Your task to perform on an android device: turn off notifications settings in the gmail app Image 0: 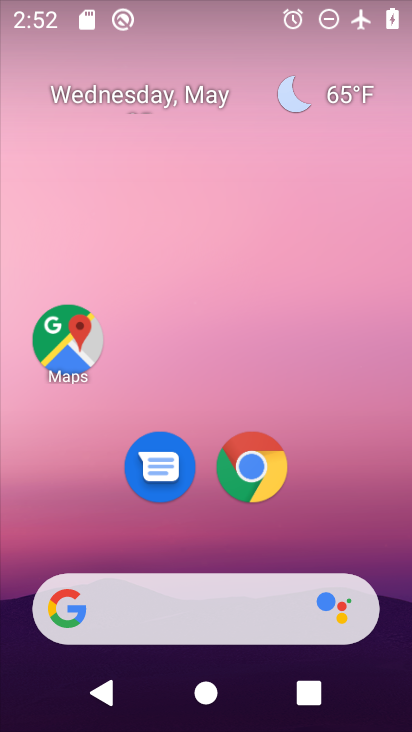
Step 0: drag from (305, 524) to (305, 201)
Your task to perform on an android device: turn off notifications settings in the gmail app Image 1: 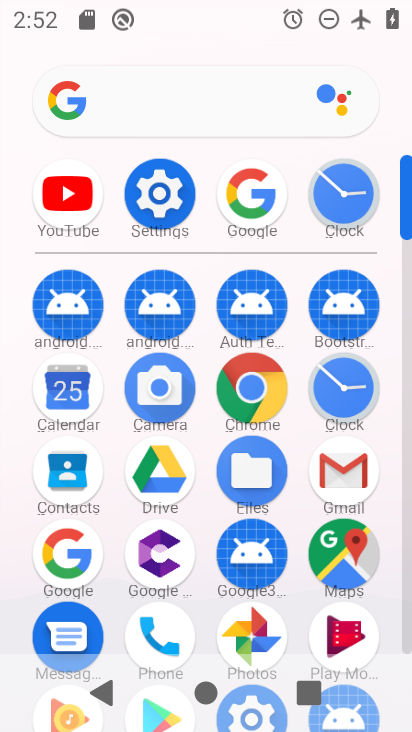
Step 1: click (343, 453)
Your task to perform on an android device: turn off notifications settings in the gmail app Image 2: 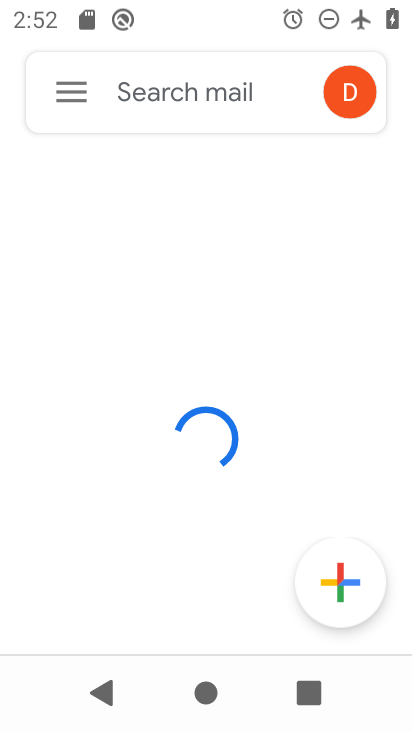
Step 2: click (70, 99)
Your task to perform on an android device: turn off notifications settings in the gmail app Image 3: 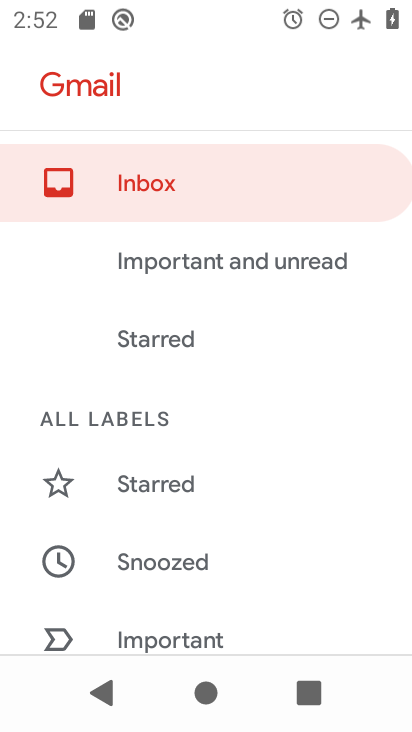
Step 3: drag from (235, 567) to (278, 247)
Your task to perform on an android device: turn off notifications settings in the gmail app Image 4: 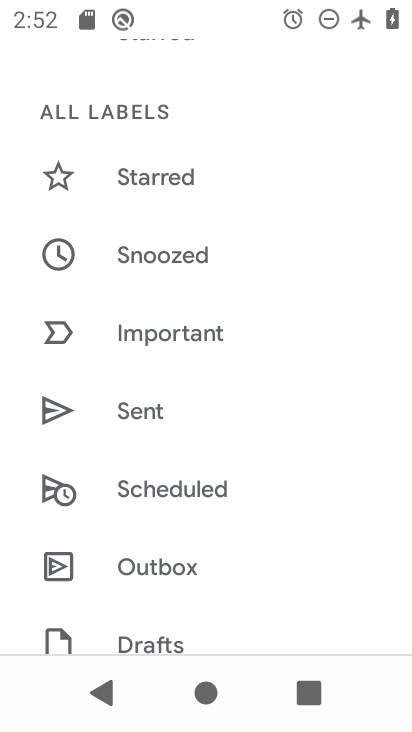
Step 4: drag from (212, 604) to (235, 193)
Your task to perform on an android device: turn off notifications settings in the gmail app Image 5: 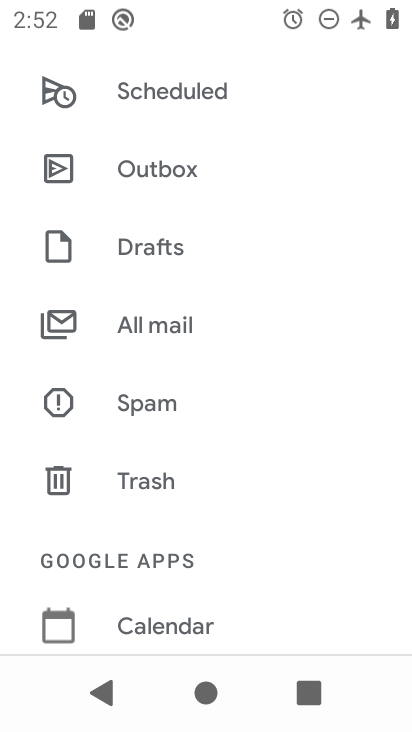
Step 5: drag from (190, 575) to (201, 164)
Your task to perform on an android device: turn off notifications settings in the gmail app Image 6: 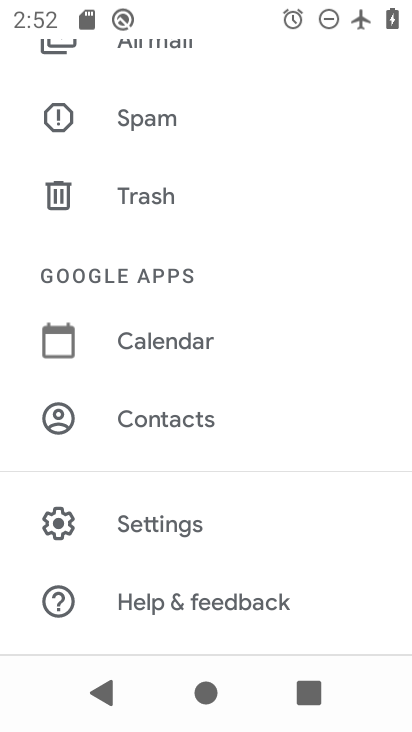
Step 6: click (161, 531)
Your task to perform on an android device: turn off notifications settings in the gmail app Image 7: 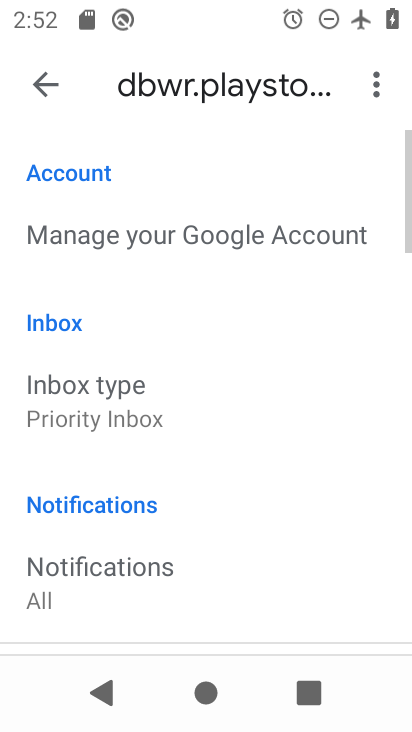
Step 7: click (129, 568)
Your task to perform on an android device: turn off notifications settings in the gmail app Image 8: 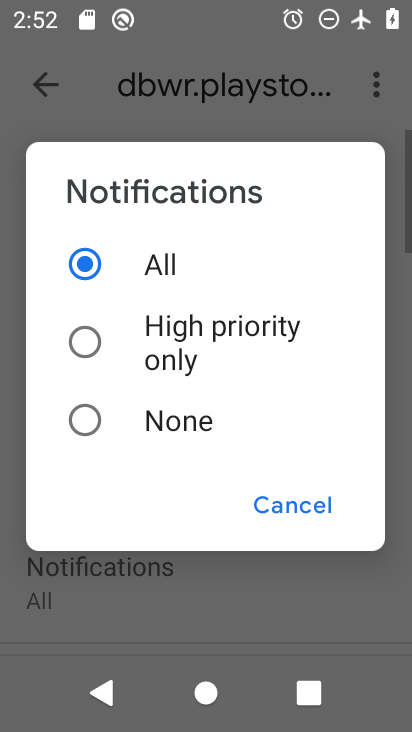
Step 8: click (163, 409)
Your task to perform on an android device: turn off notifications settings in the gmail app Image 9: 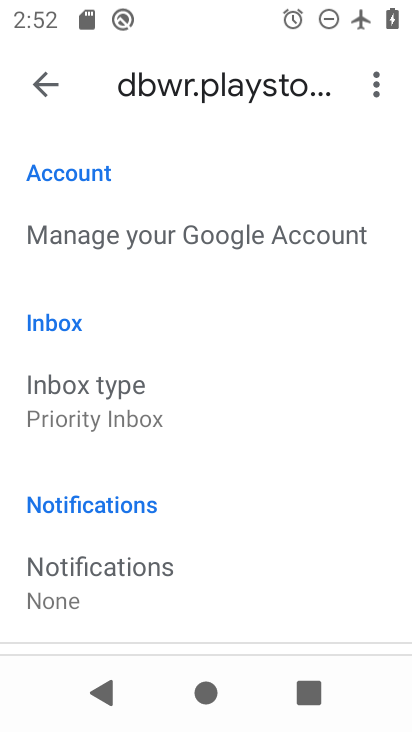
Step 9: task complete